Your task to perform on an android device: Is it going to rain this weekend? Image 0: 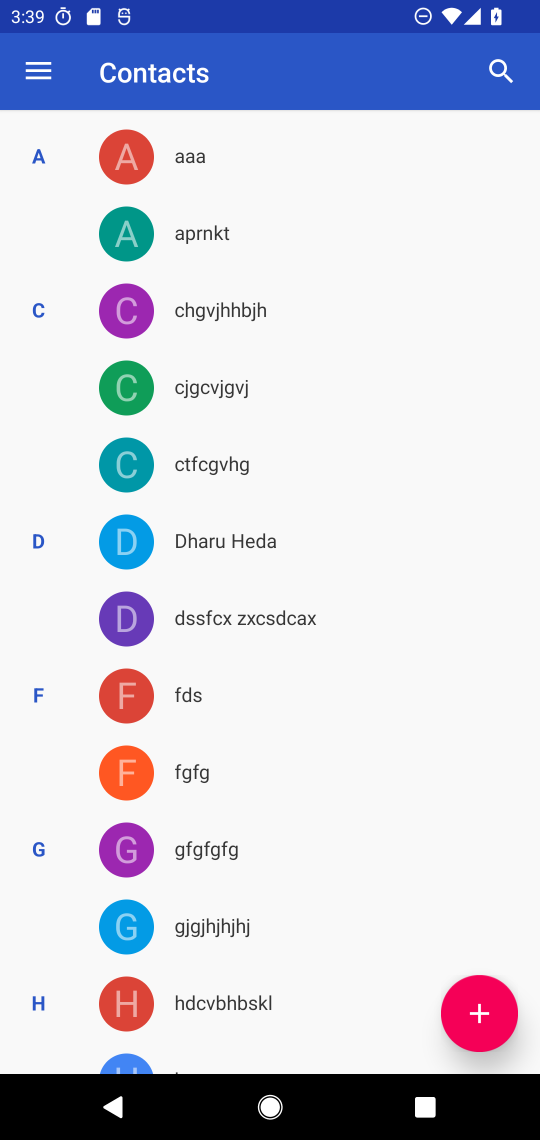
Step 0: press home button
Your task to perform on an android device: Is it going to rain this weekend? Image 1: 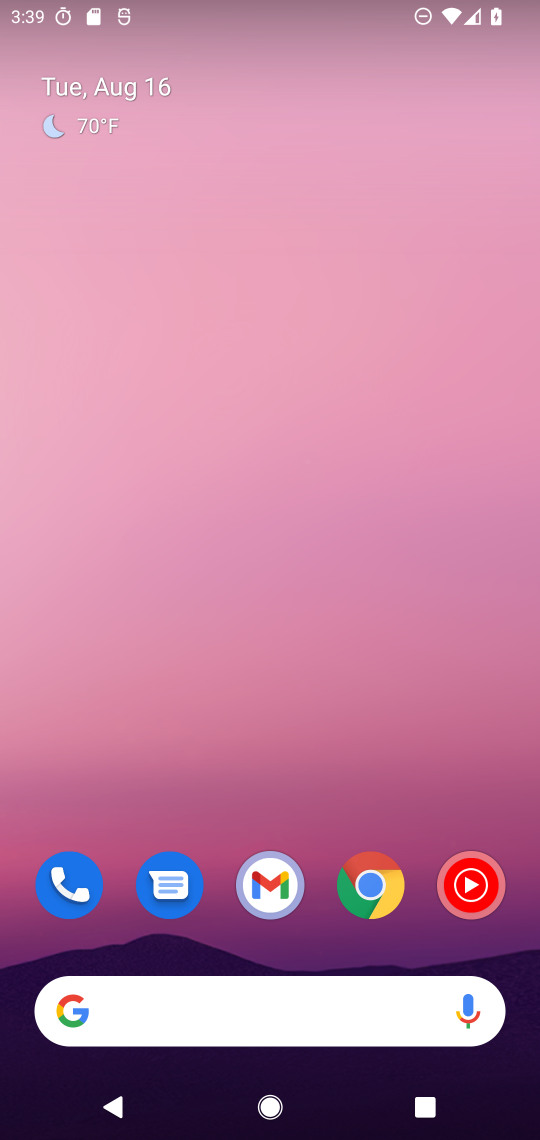
Step 1: drag from (192, 970) to (263, 398)
Your task to perform on an android device: Is it going to rain this weekend? Image 2: 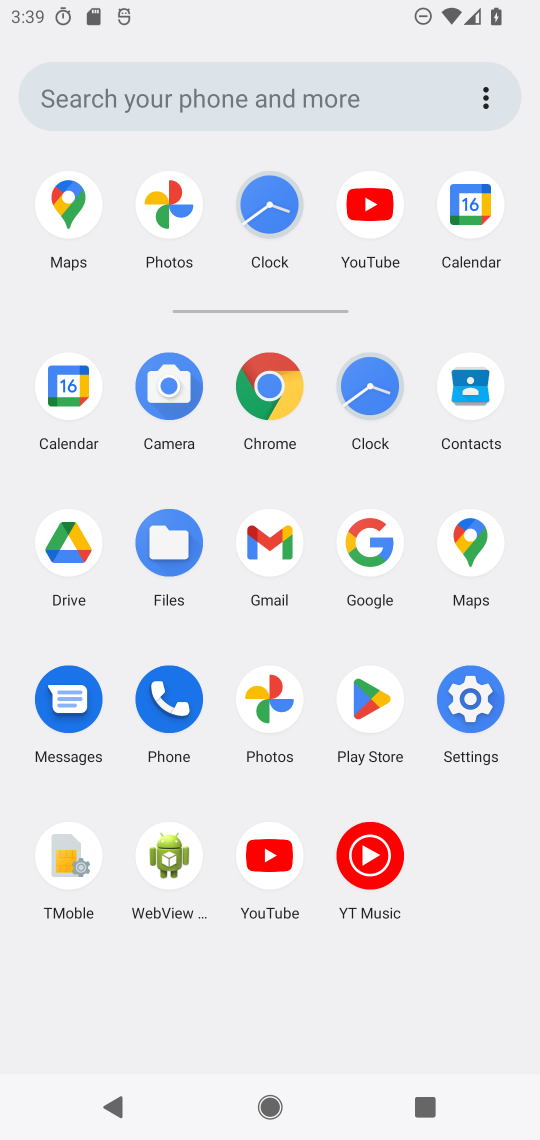
Step 2: click (484, 187)
Your task to perform on an android device: Is it going to rain this weekend? Image 3: 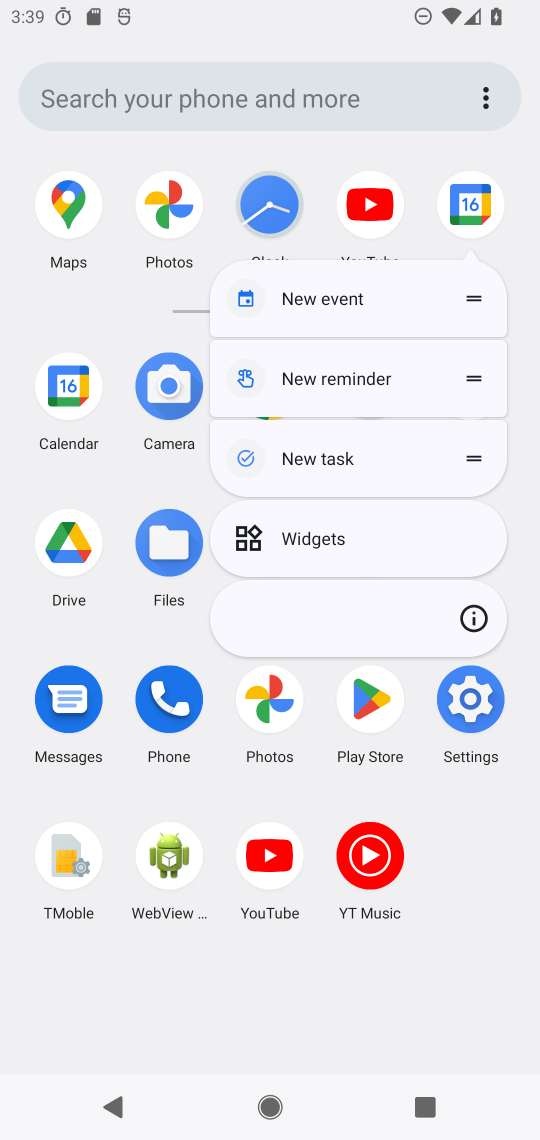
Step 3: click (481, 187)
Your task to perform on an android device: Is it going to rain this weekend? Image 4: 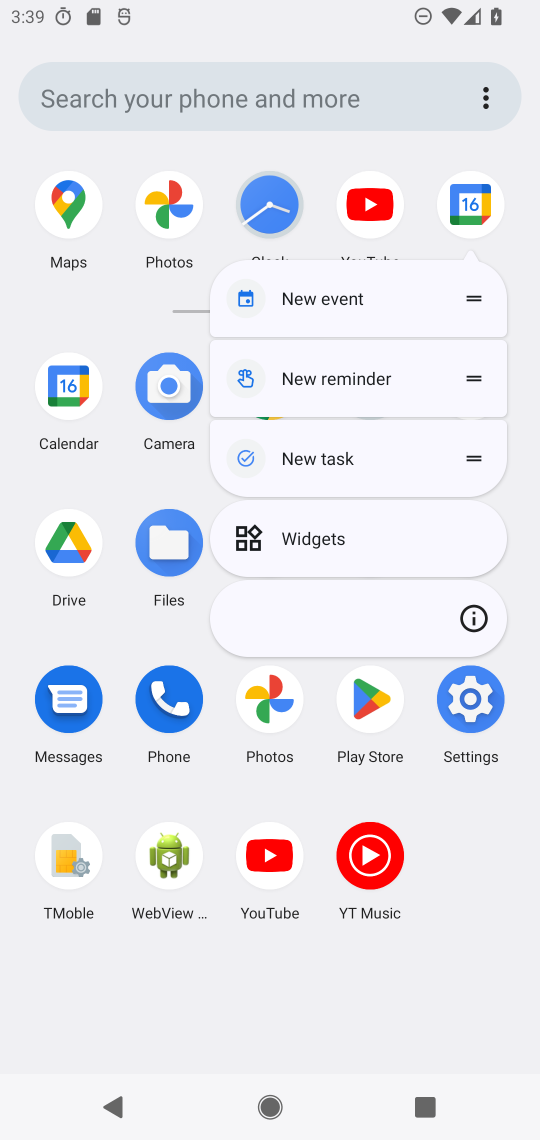
Step 4: click (481, 193)
Your task to perform on an android device: Is it going to rain this weekend? Image 5: 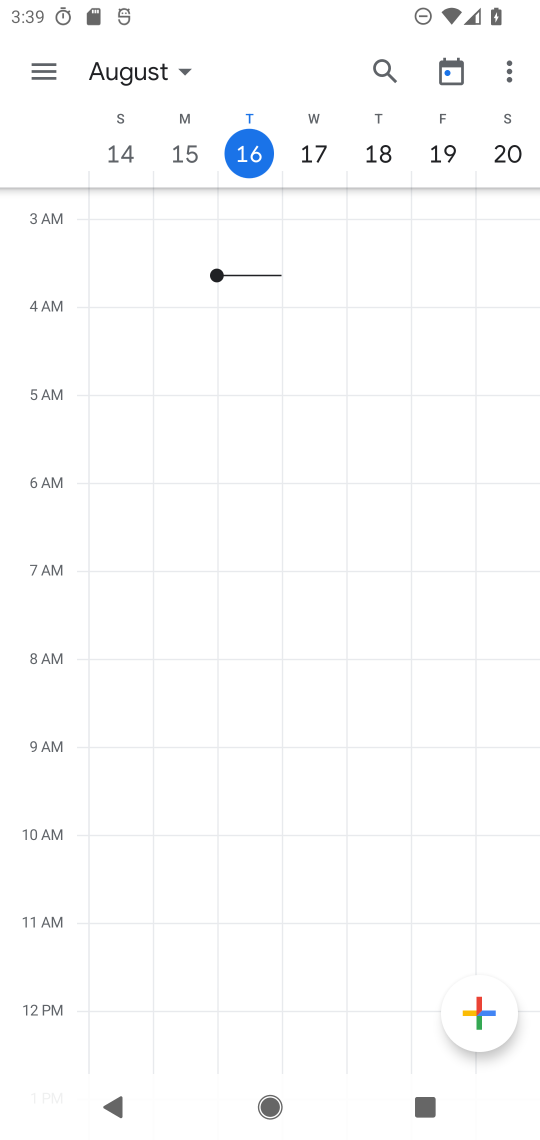
Step 5: press home button
Your task to perform on an android device: Is it going to rain this weekend? Image 6: 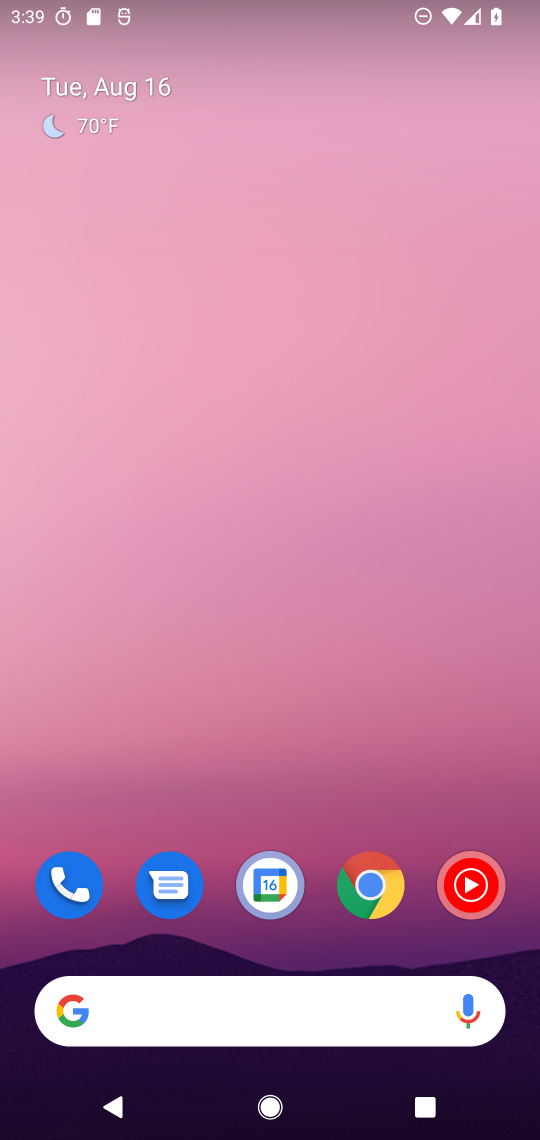
Step 6: drag from (290, 864) to (301, 343)
Your task to perform on an android device: Is it going to rain this weekend? Image 7: 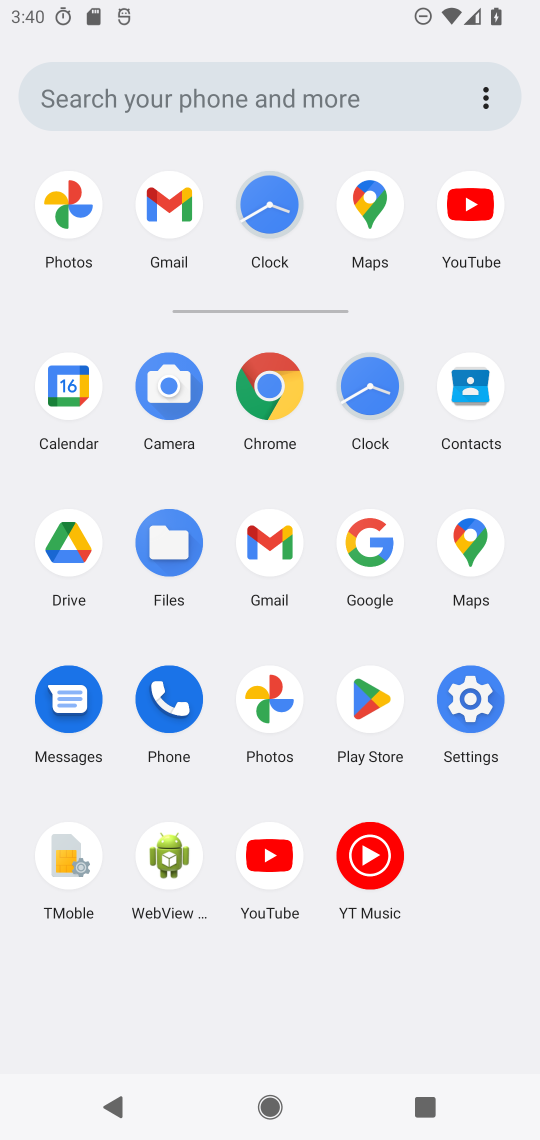
Step 7: click (272, 383)
Your task to perform on an android device: Is it going to rain this weekend? Image 8: 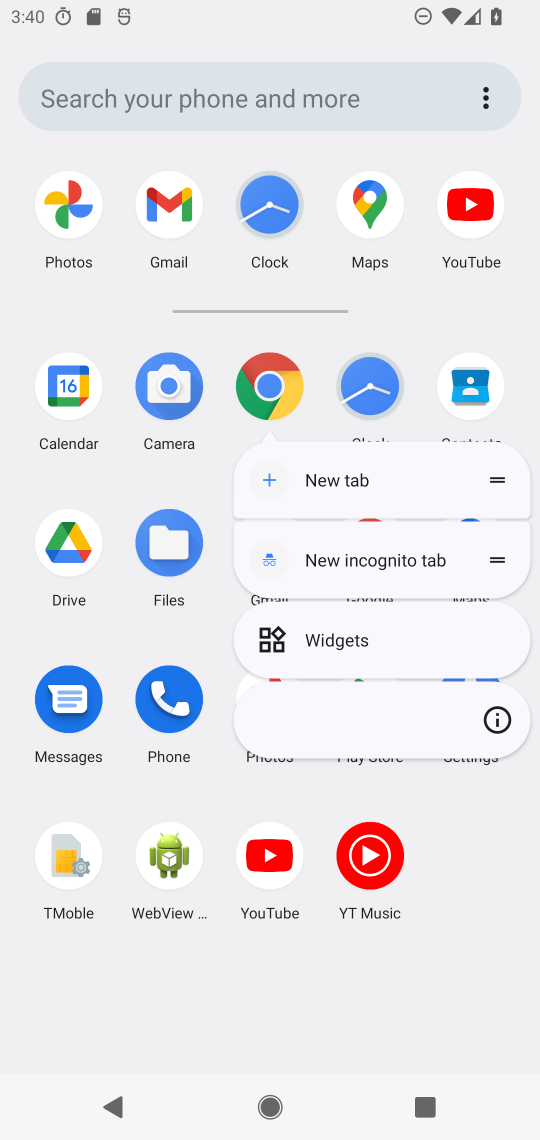
Step 8: click (272, 383)
Your task to perform on an android device: Is it going to rain this weekend? Image 9: 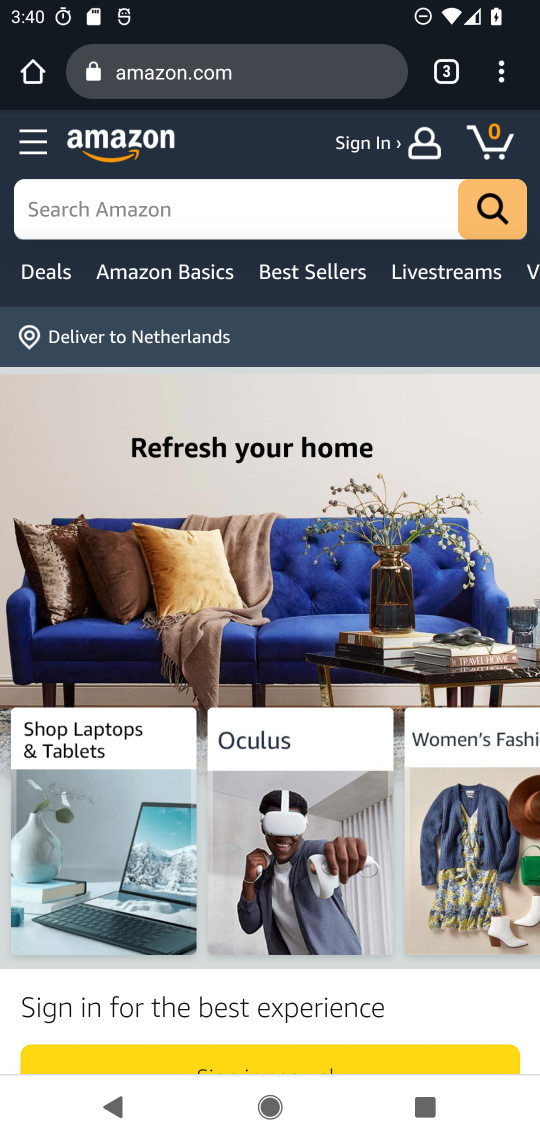
Step 9: click (499, 66)
Your task to perform on an android device: Is it going to rain this weekend? Image 10: 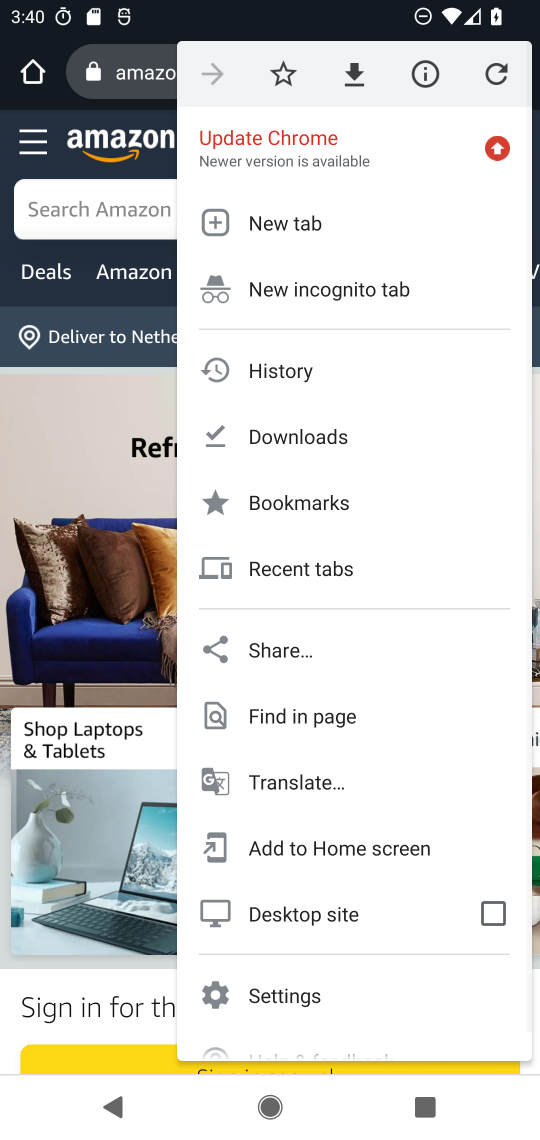
Step 10: click (285, 220)
Your task to perform on an android device: Is it going to rain this weekend? Image 11: 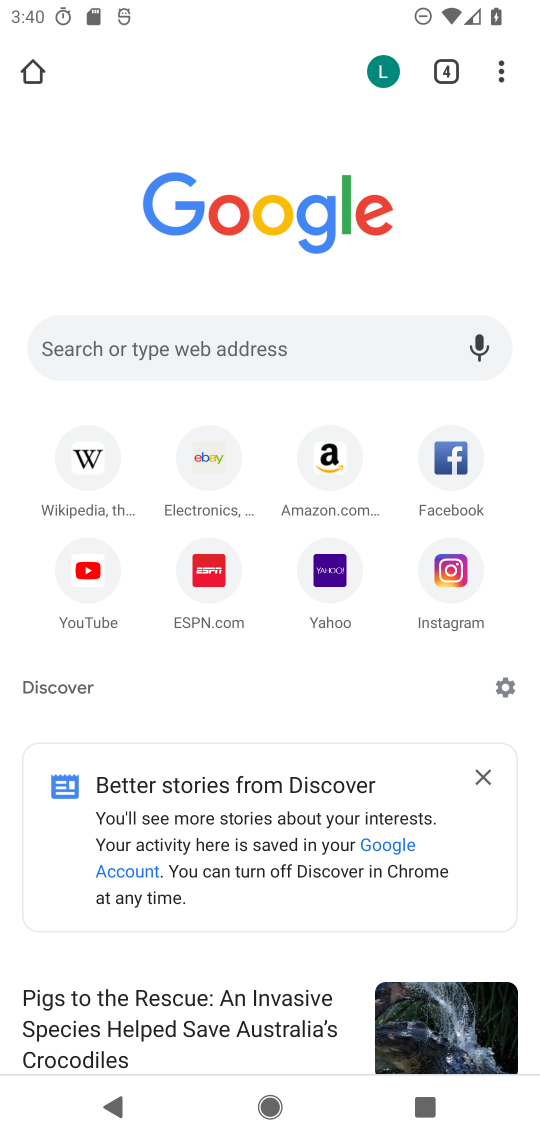
Step 11: click (211, 344)
Your task to perform on an android device: Is it going to rain this weekend? Image 12: 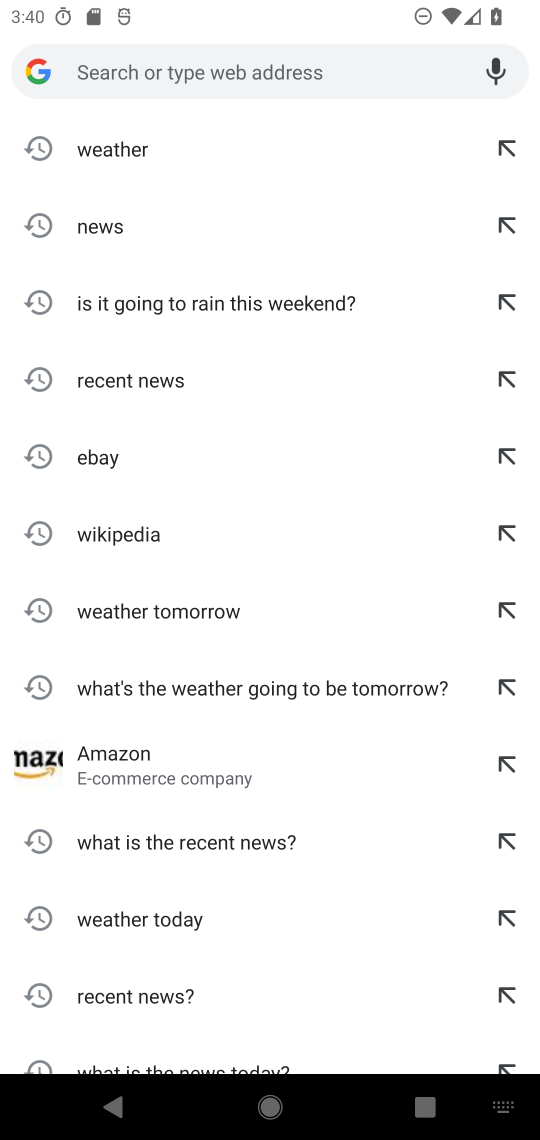
Step 12: type "Is it going to rain this weekend "
Your task to perform on an android device: Is it going to rain this weekend? Image 13: 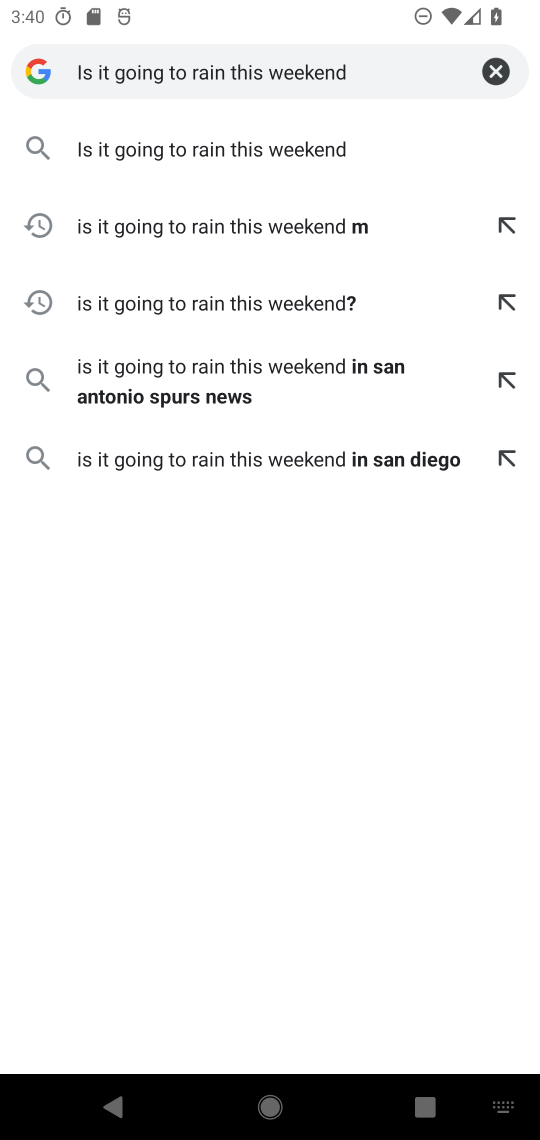
Step 13: click (264, 147)
Your task to perform on an android device: Is it going to rain this weekend? Image 14: 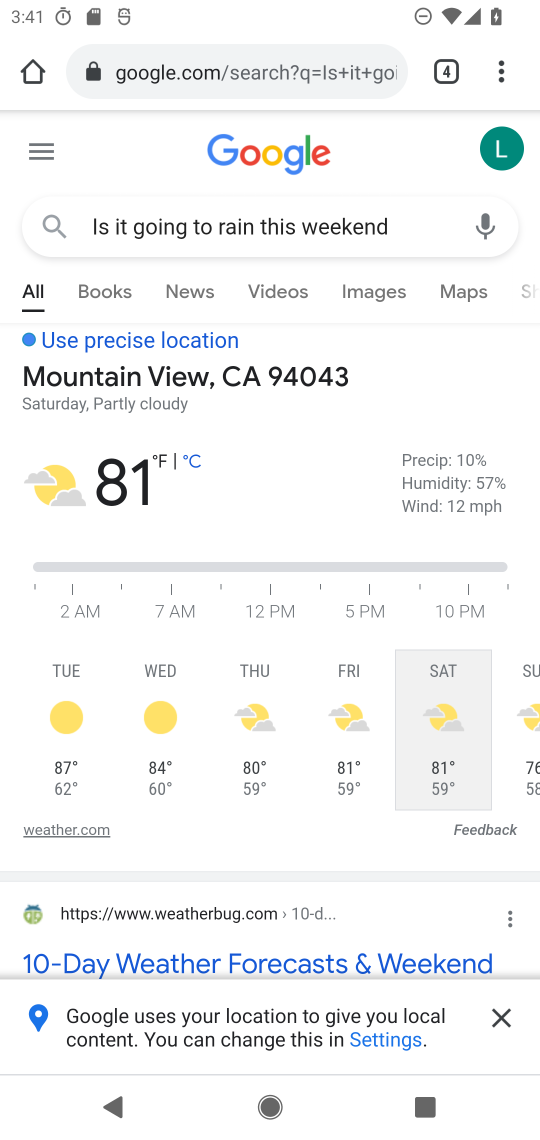
Step 14: task complete